Your task to perform on an android device: Clear the shopping cart on target.com. Add bose soundsport free to the cart on target.com Image 0: 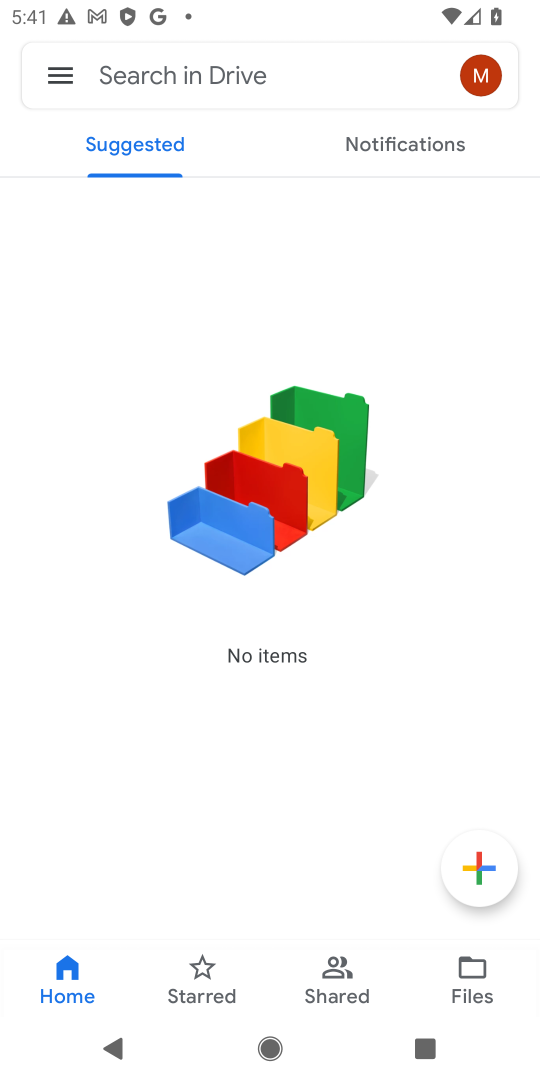
Step 0: press home button
Your task to perform on an android device: Clear the shopping cart on target.com. Add bose soundsport free to the cart on target.com Image 1: 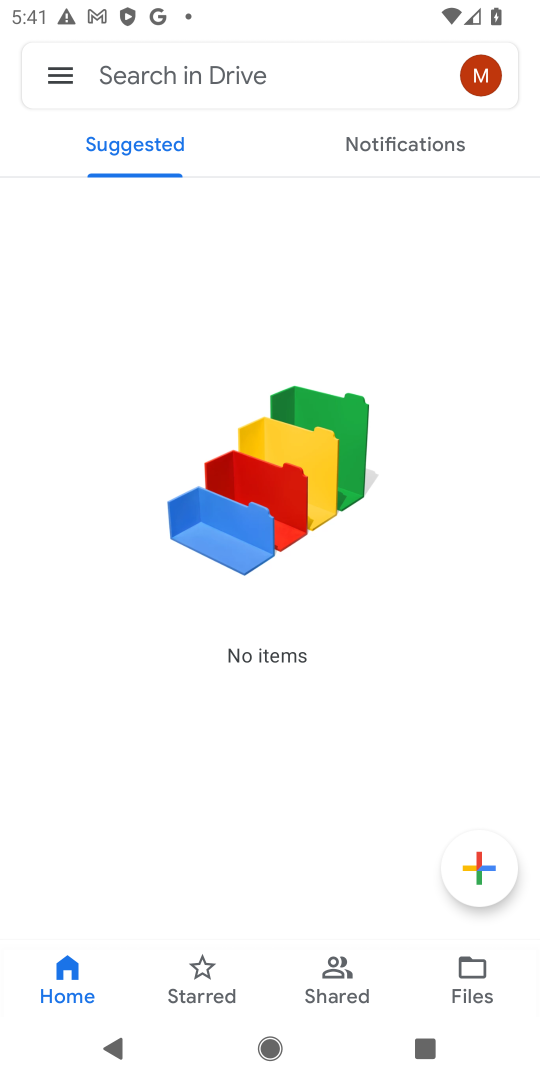
Step 1: press home button
Your task to perform on an android device: Clear the shopping cart on target.com. Add bose soundsport free to the cart on target.com Image 2: 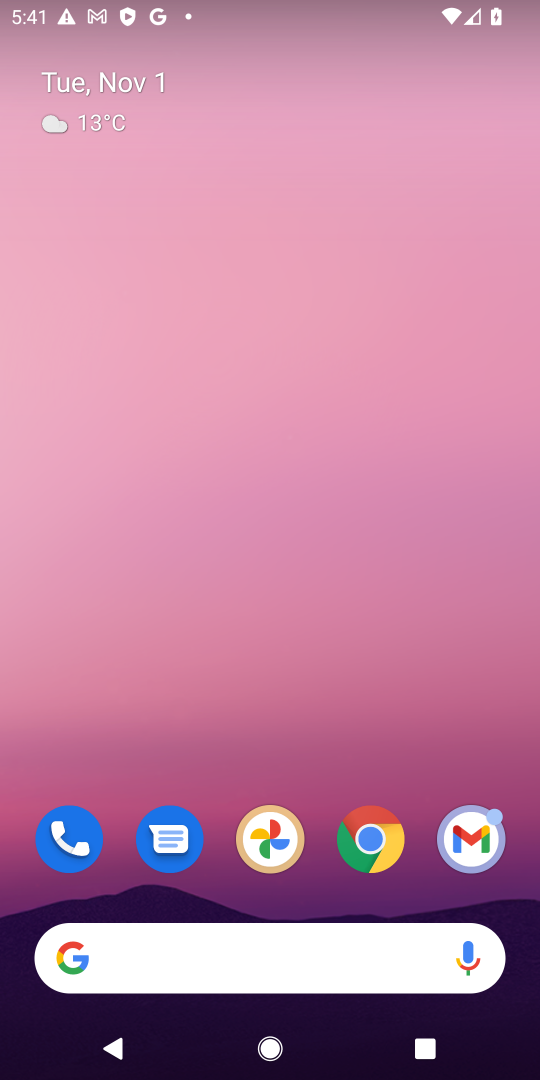
Step 2: drag from (310, 889) to (367, 77)
Your task to perform on an android device: Clear the shopping cart on target.com. Add bose soundsport free to the cart on target.com Image 3: 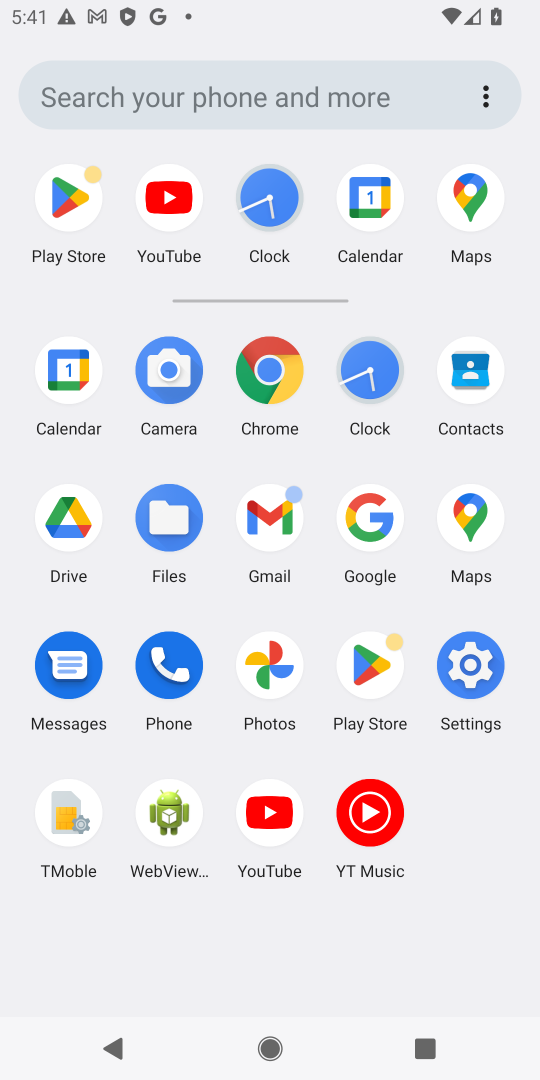
Step 3: click (273, 357)
Your task to perform on an android device: Clear the shopping cart on target.com. Add bose soundsport free to the cart on target.com Image 4: 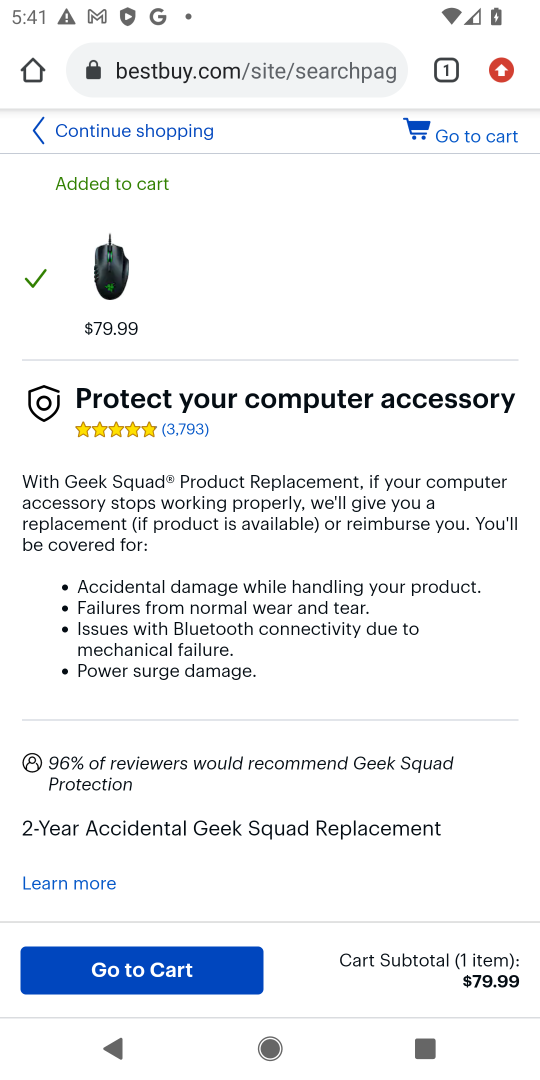
Step 4: click (268, 71)
Your task to perform on an android device: Clear the shopping cart on target.com. Add bose soundsport free to the cart on target.com Image 5: 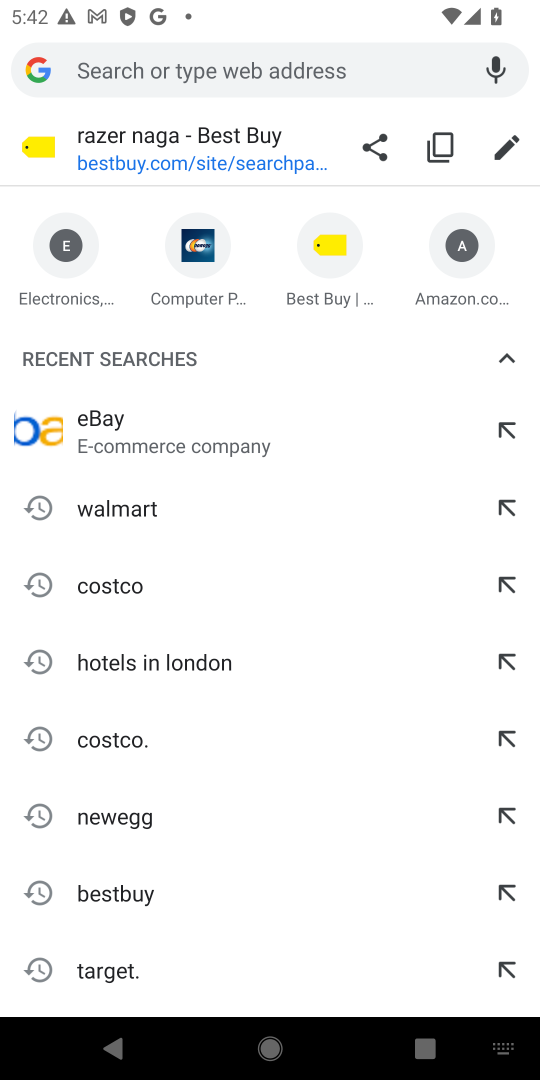
Step 5: type "target.com"
Your task to perform on an android device: Clear the shopping cart on target.com. Add bose soundsport free to the cart on target.com Image 6: 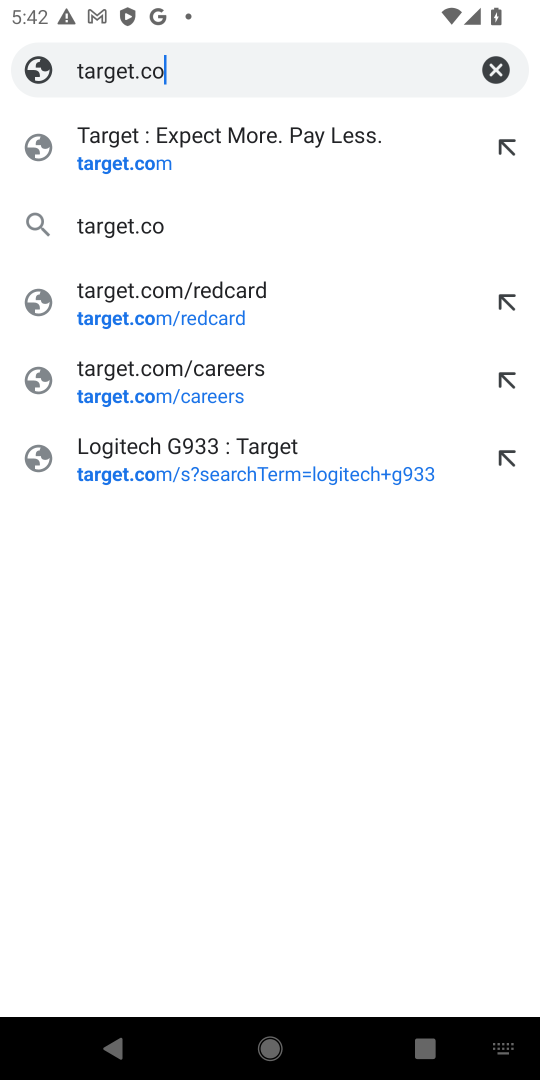
Step 6: press enter
Your task to perform on an android device: Clear the shopping cart on target.com. Add bose soundsport free to the cart on target.com Image 7: 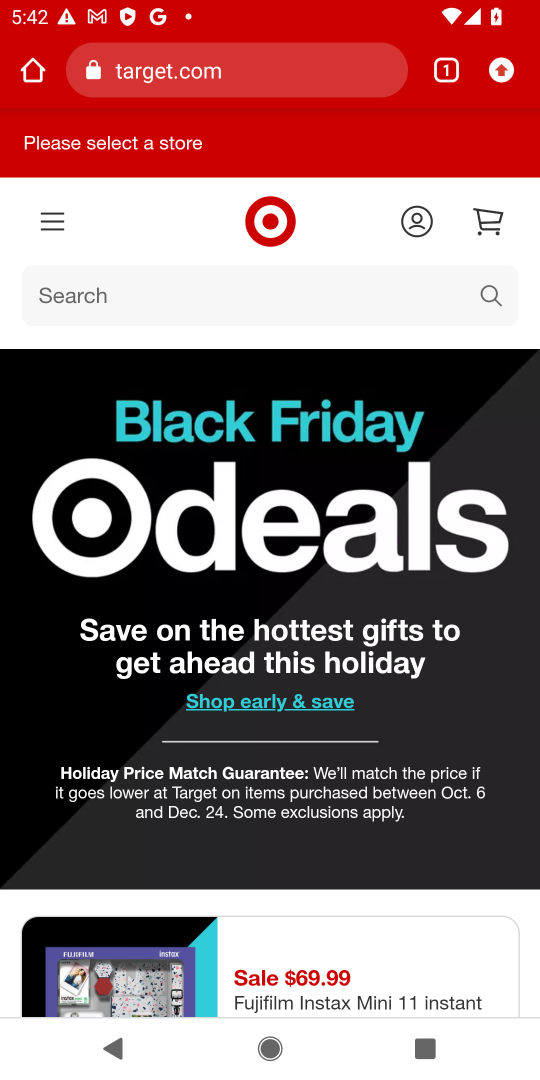
Step 7: click (481, 219)
Your task to perform on an android device: Clear the shopping cart on target.com. Add bose soundsport free to the cart on target.com Image 8: 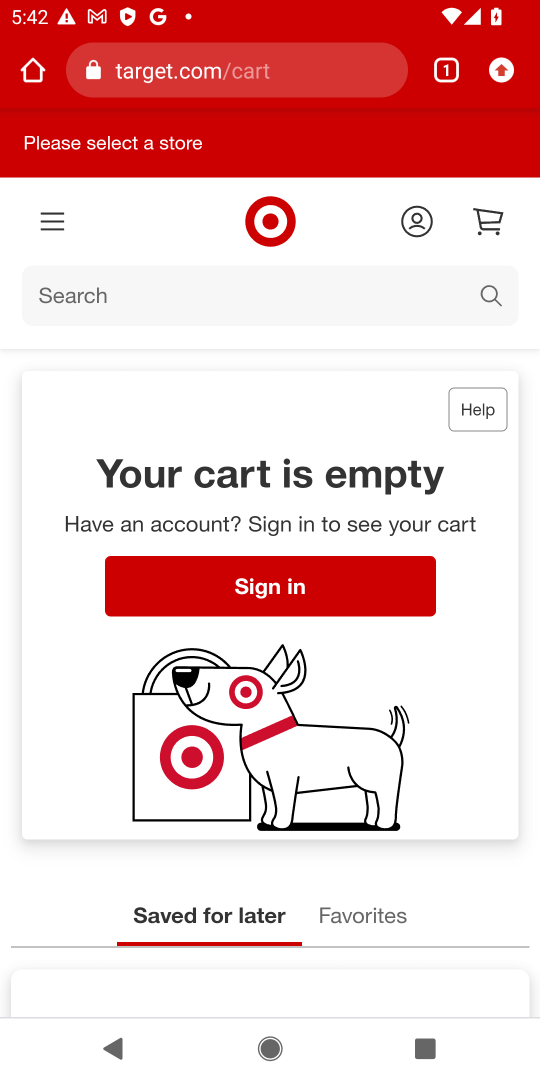
Step 8: click (284, 318)
Your task to perform on an android device: Clear the shopping cart on target.com. Add bose soundsport free to the cart on target.com Image 9: 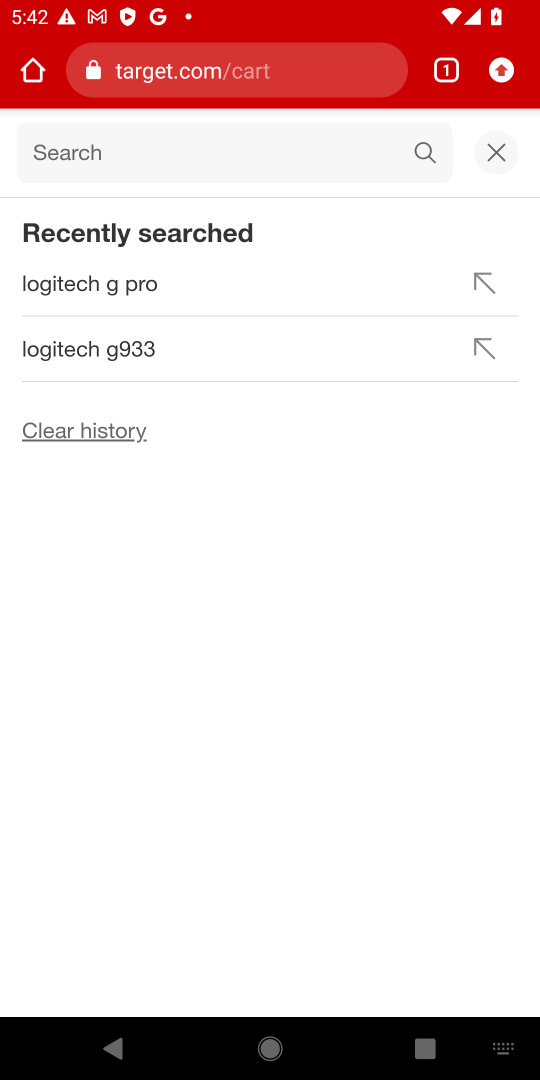
Step 9: type "bose soundsport free"
Your task to perform on an android device: Clear the shopping cart on target.com. Add bose soundsport free to the cart on target.com Image 10: 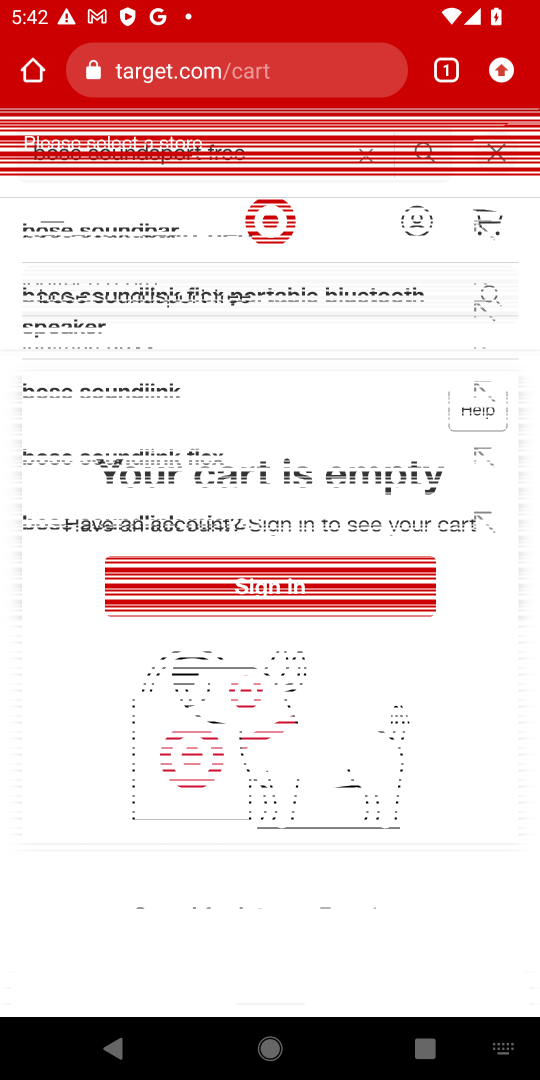
Step 10: press enter
Your task to perform on an android device: Clear the shopping cart on target.com. Add bose soundsport free to the cart on target.com Image 11: 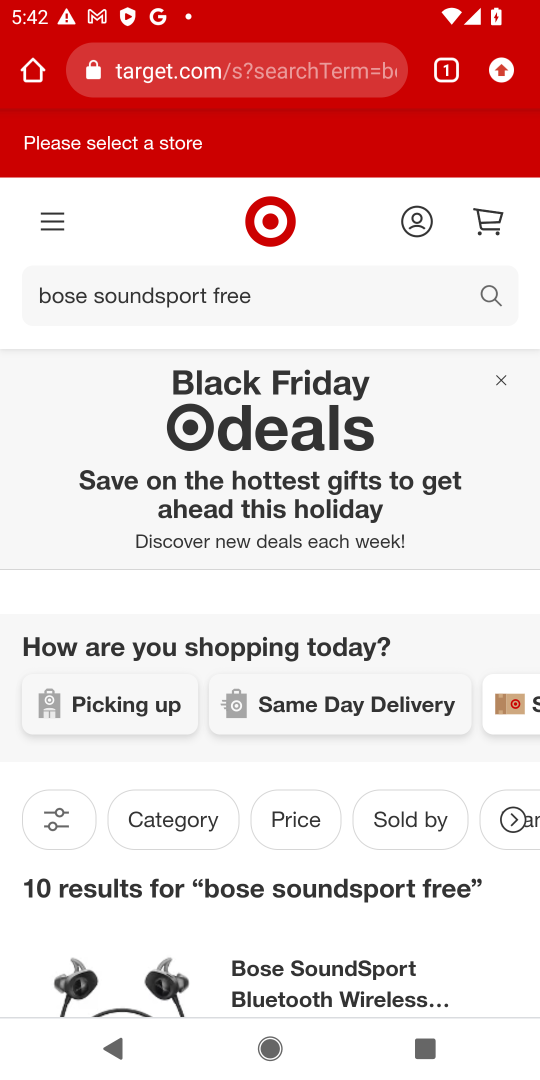
Step 11: task complete